Your task to perform on an android device: Search for sushi restaurants on Maps Image 0: 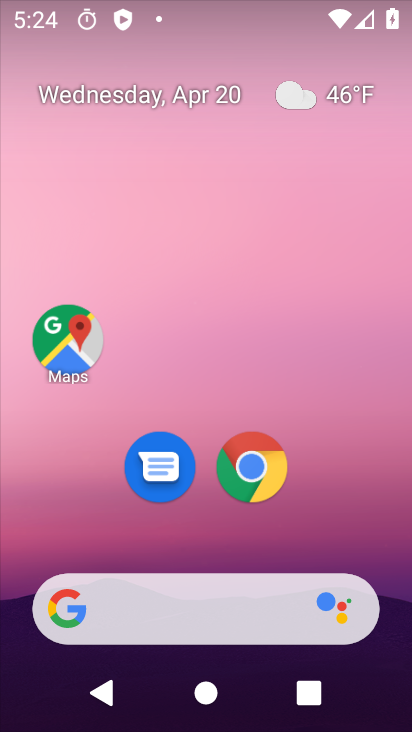
Step 0: click (75, 339)
Your task to perform on an android device: Search for sushi restaurants on Maps Image 1: 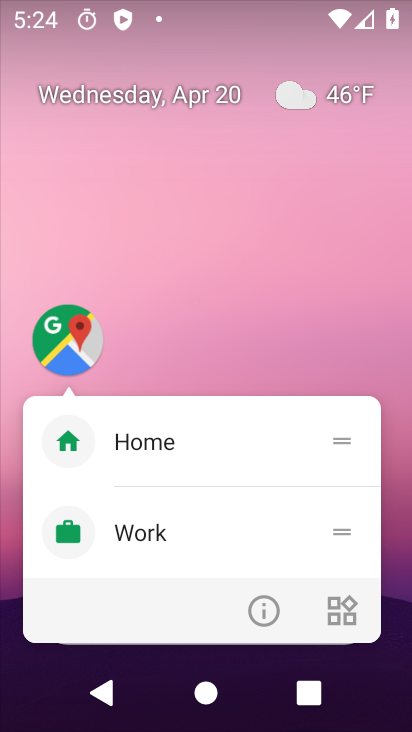
Step 1: click (75, 339)
Your task to perform on an android device: Search for sushi restaurants on Maps Image 2: 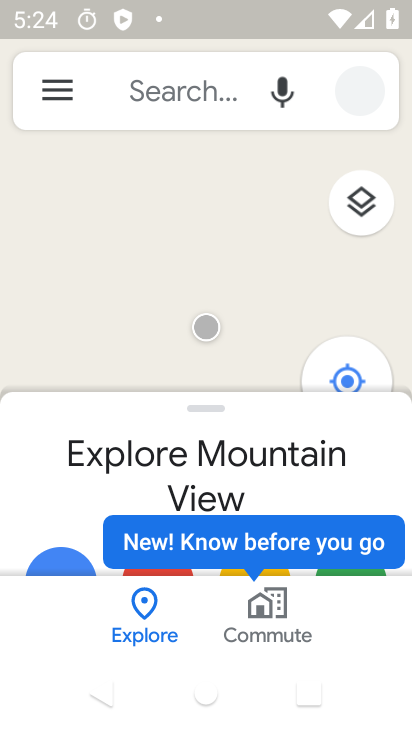
Step 2: click (190, 84)
Your task to perform on an android device: Search for sushi restaurants on Maps Image 3: 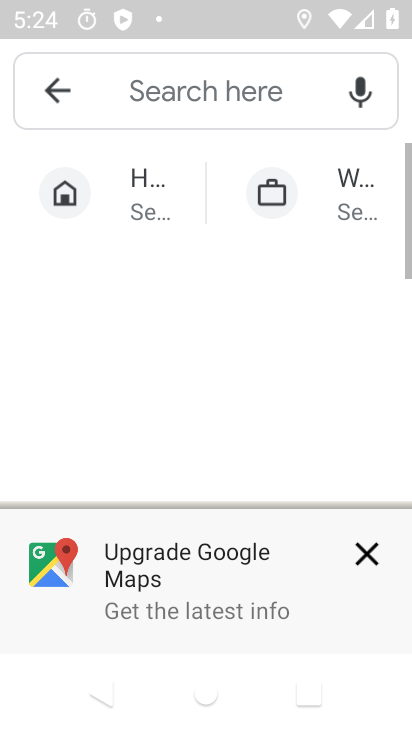
Step 3: click (136, 83)
Your task to perform on an android device: Search for sushi restaurants on Maps Image 4: 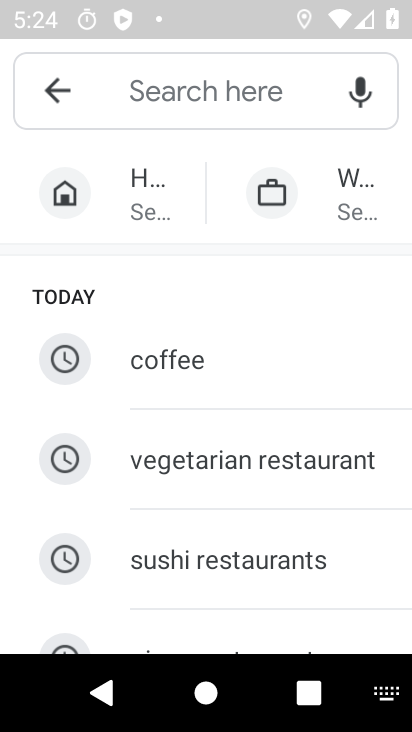
Step 4: type "sushi restaurants"
Your task to perform on an android device: Search for sushi restaurants on Maps Image 5: 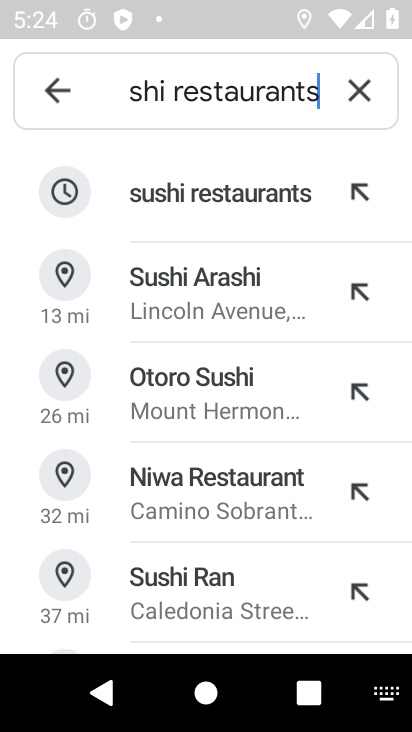
Step 5: click (216, 184)
Your task to perform on an android device: Search for sushi restaurants on Maps Image 6: 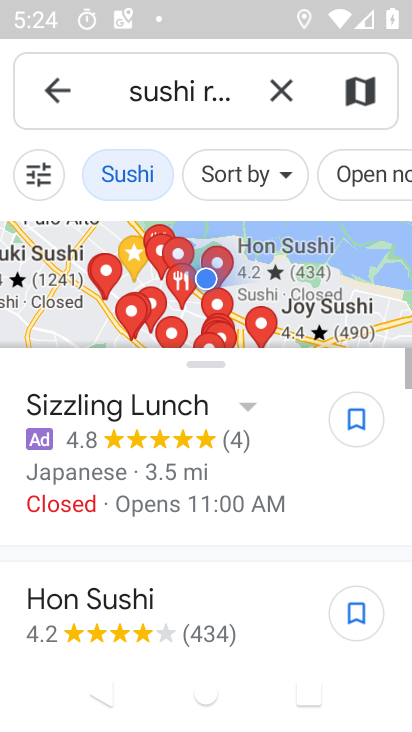
Step 6: task complete